Your task to perform on an android device: Toggle the flashlight Image 0: 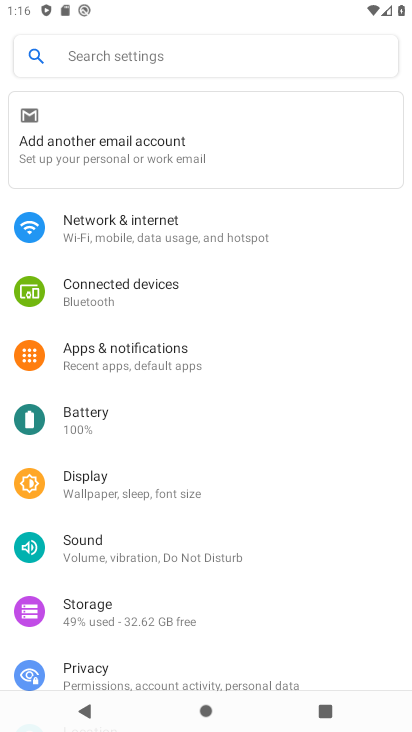
Step 0: click (252, 58)
Your task to perform on an android device: Toggle the flashlight Image 1: 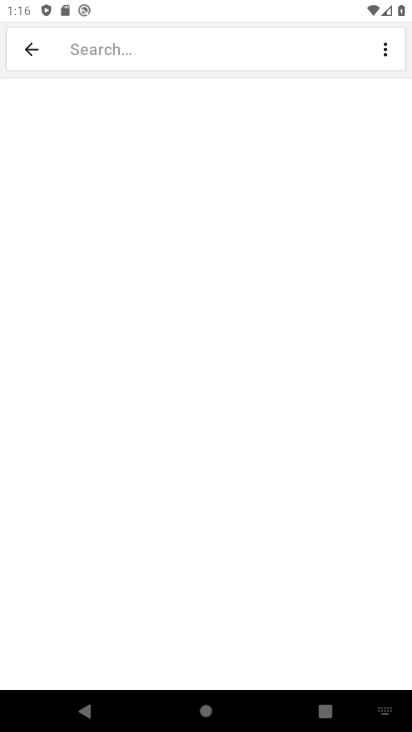
Step 1: type "Flashlight"
Your task to perform on an android device: Toggle the flashlight Image 2: 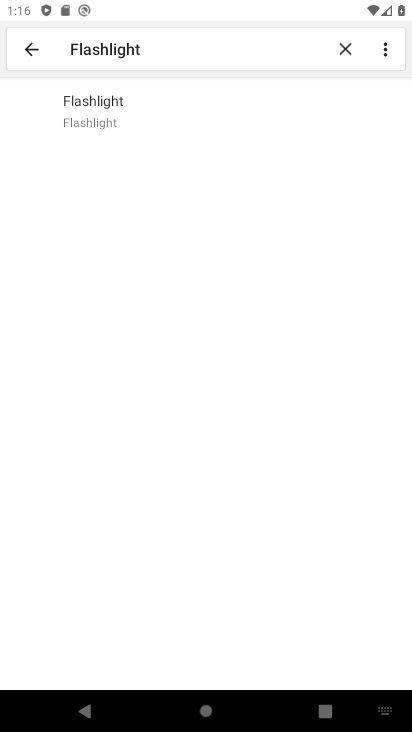
Step 2: click (110, 104)
Your task to perform on an android device: Toggle the flashlight Image 3: 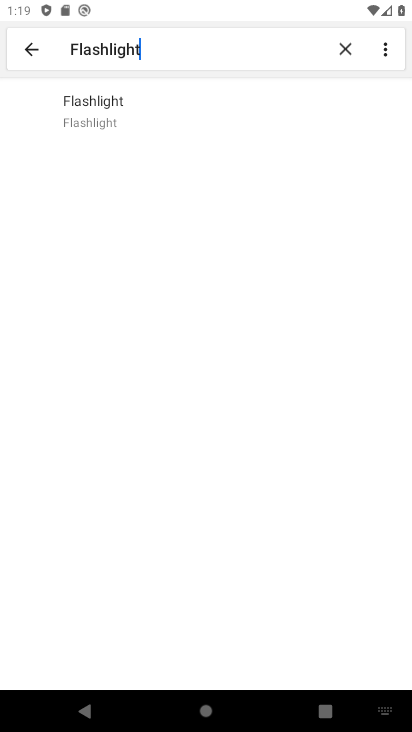
Step 3: task complete